Your task to perform on an android device: Play the last video I watched on Youtube Image 0: 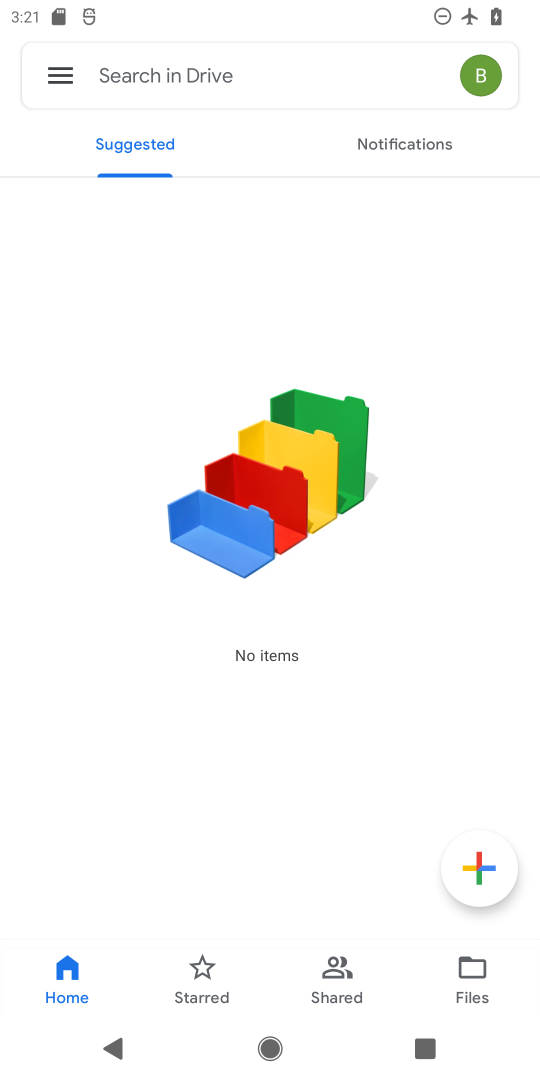
Step 0: press home button
Your task to perform on an android device: Play the last video I watched on Youtube Image 1: 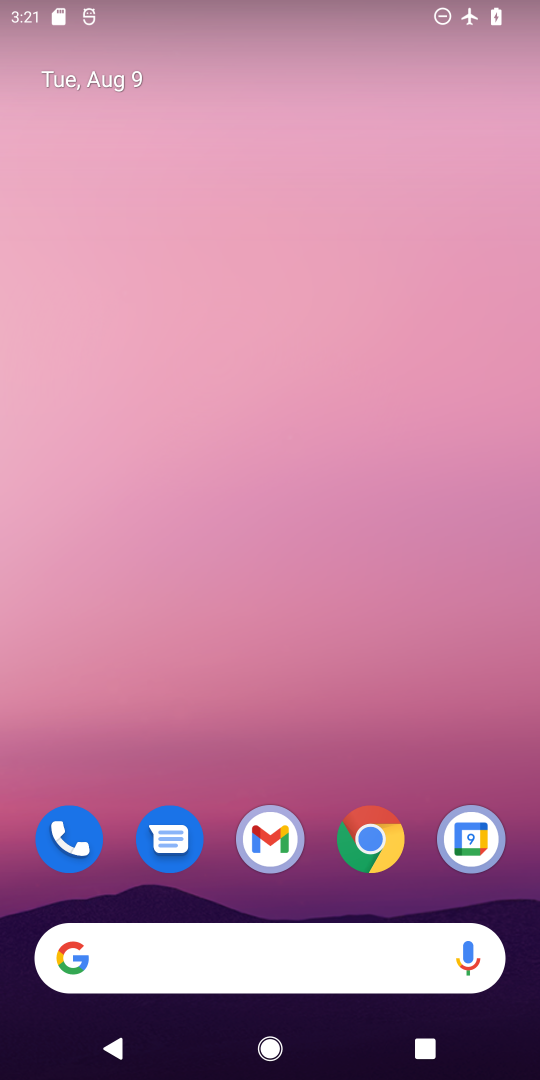
Step 1: drag from (358, 762) to (314, 221)
Your task to perform on an android device: Play the last video I watched on Youtube Image 2: 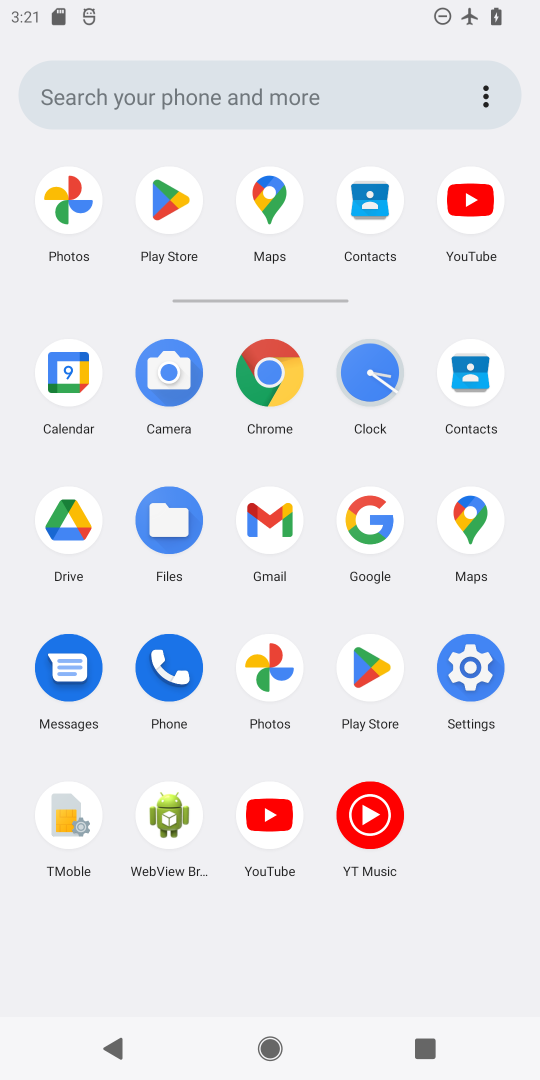
Step 2: click (248, 796)
Your task to perform on an android device: Play the last video I watched on Youtube Image 3: 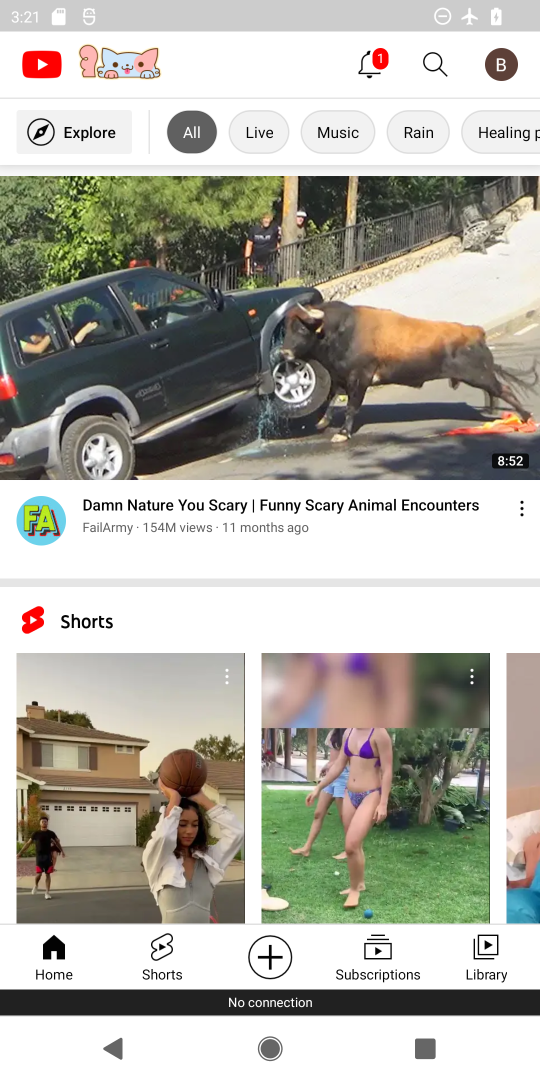
Step 3: click (480, 946)
Your task to perform on an android device: Play the last video I watched on Youtube Image 4: 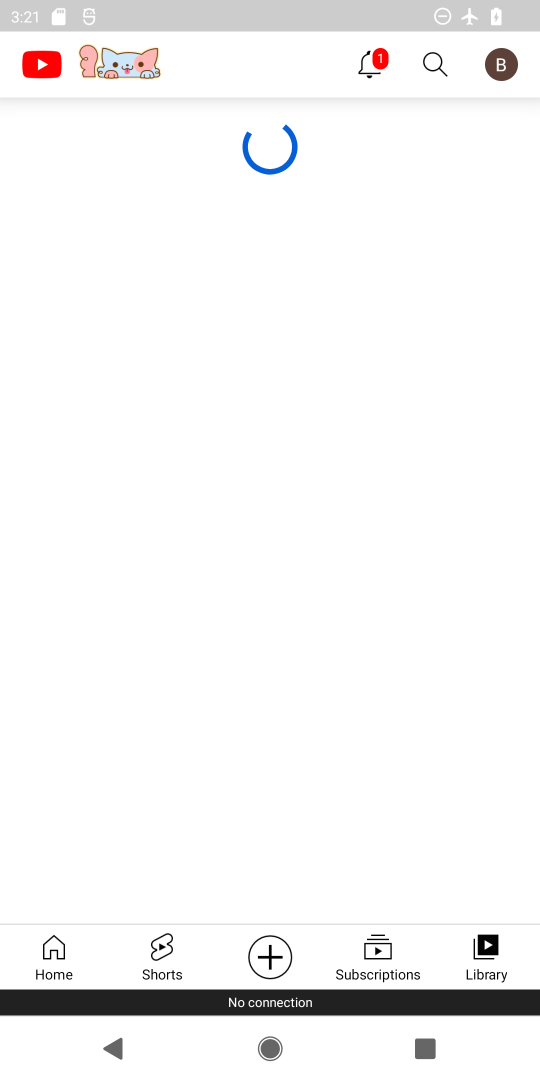
Step 4: click (477, 953)
Your task to perform on an android device: Play the last video I watched on Youtube Image 5: 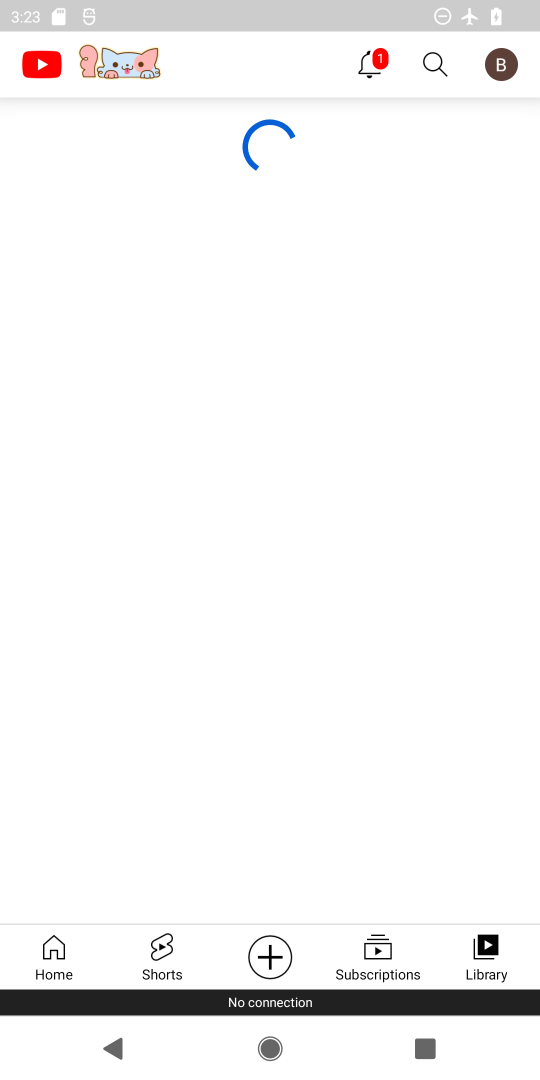
Step 5: task complete